Your task to perform on an android device: move a message to another label in the gmail app Image 0: 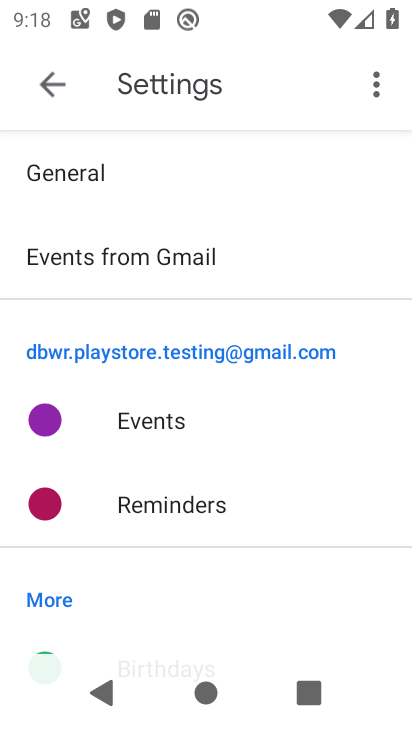
Step 0: press home button
Your task to perform on an android device: move a message to another label in the gmail app Image 1: 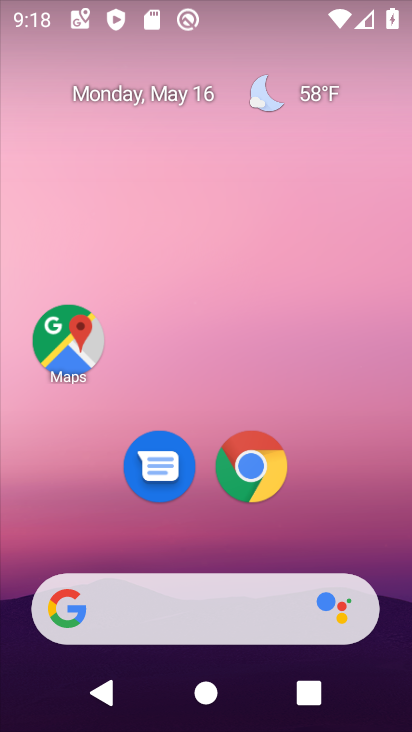
Step 1: drag from (293, 526) to (321, 102)
Your task to perform on an android device: move a message to another label in the gmail app Image 2: 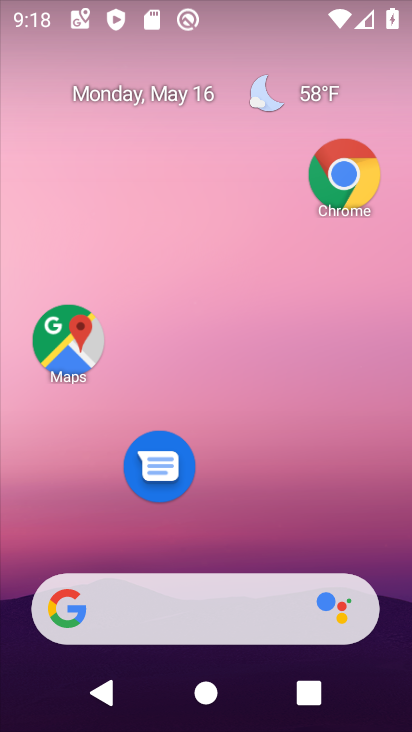
Step 2: drag from (299, 279) to (299, 97)
Your task to perform on an android device: move a message to another label in the gmail app Image 3: 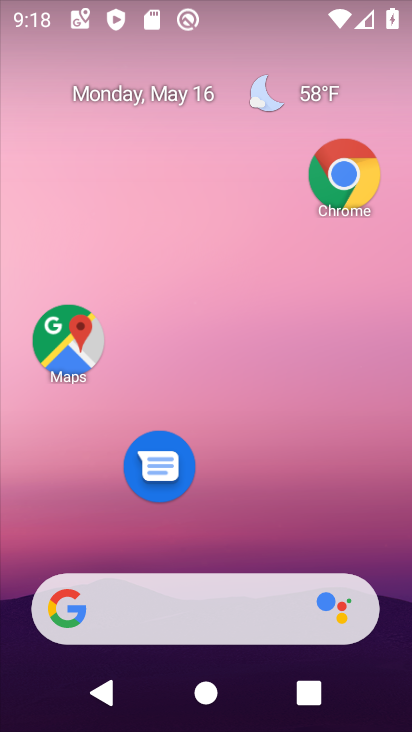
Step 3: drag from (298, 485) to (289, 116)
Your task to perform on an android device: move a message to another label in the gmail app Image 4: 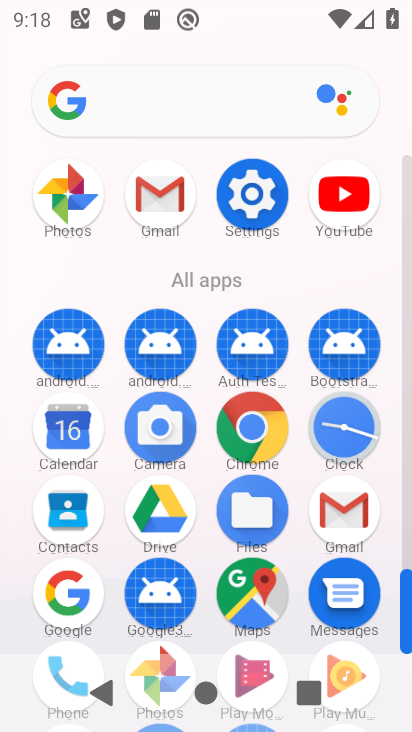
Step 4: click (156, 193)
Your task to perform on an android device: move a message to another label in the gmail app Image 5: 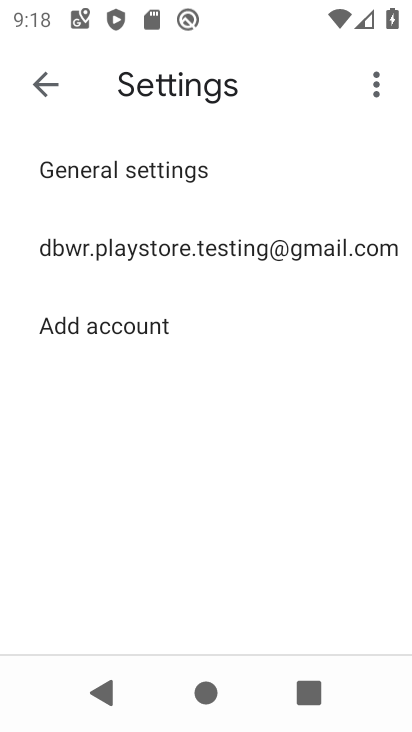
Step 5: click (265, 242)
Your task to perform on an android device: move a message to another label in the gmail app Image 6: 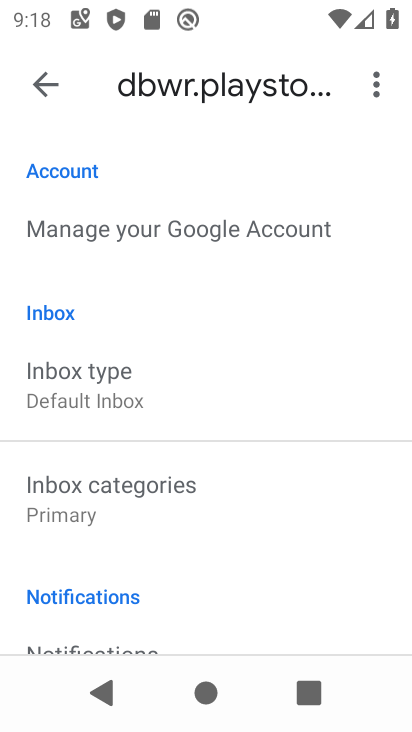
Step 6: press back button
Your task to perform on an android device: move a message to another label in the gmail app Image 7: 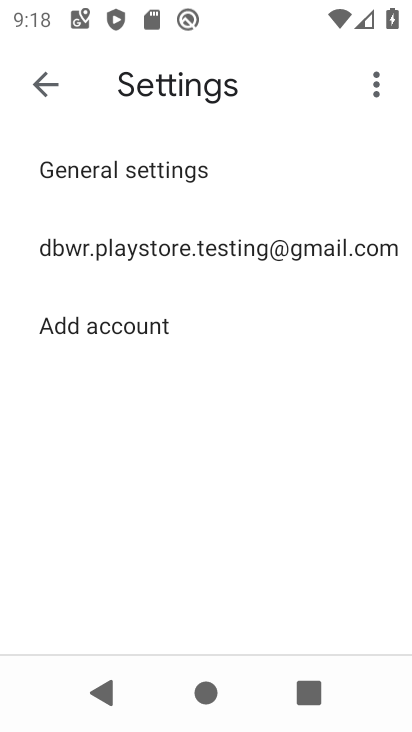
Step 7: press back button
Your task to perform on an android device: move a message to another label in the gmail app Image 8: 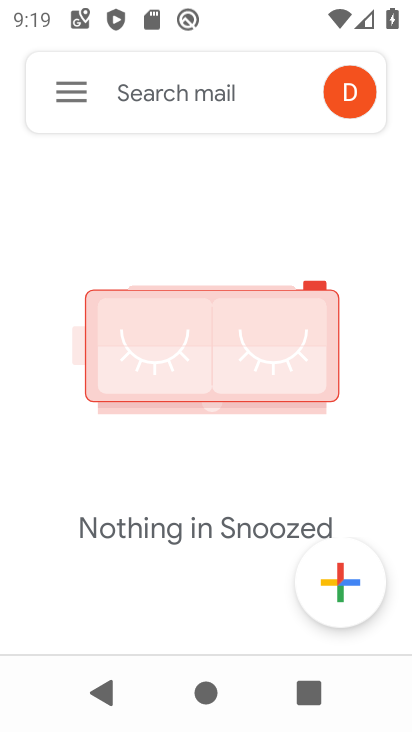
Step 8: click (81, 81)
Your task to perform on an android device: move a message to another label in the gmail app Image 9: 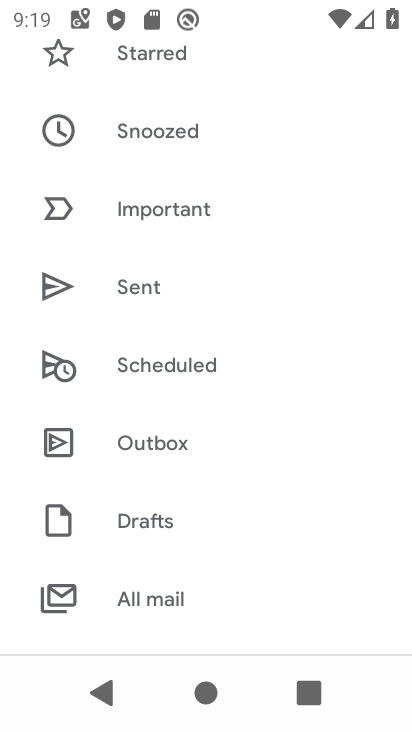
Step 9: drag from (174, 68) to (171, 513)
Your task to perform on an android device: move a message to another label in the gmail app Image 10: 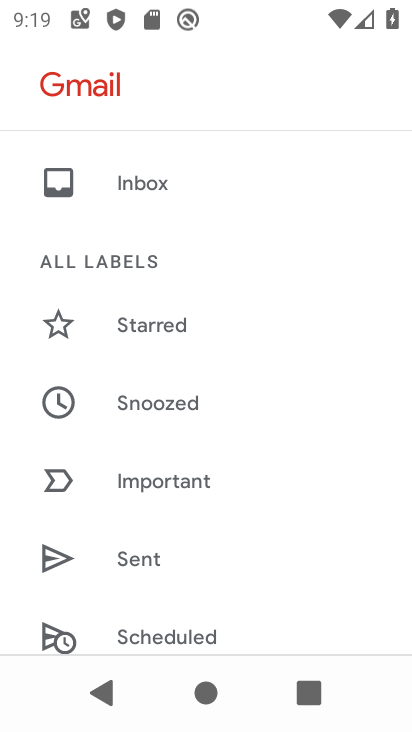
Step 10: click (161, 189)
Your task to perform on an android device: move a message to another label in the gmail app Image 11: 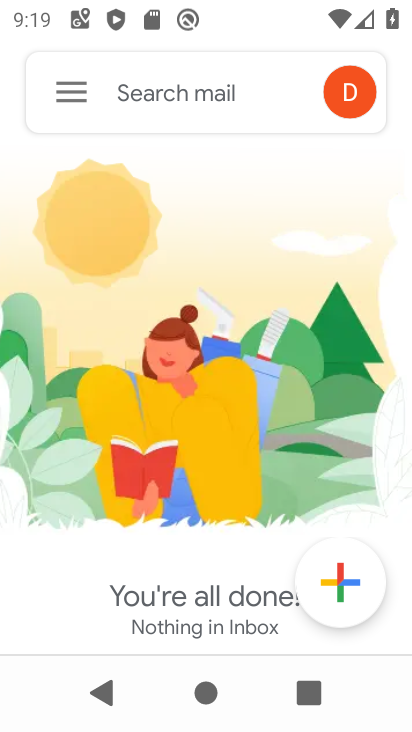
Step 11: task complete